Your task to perform on an android device: change the clock style Image 0: 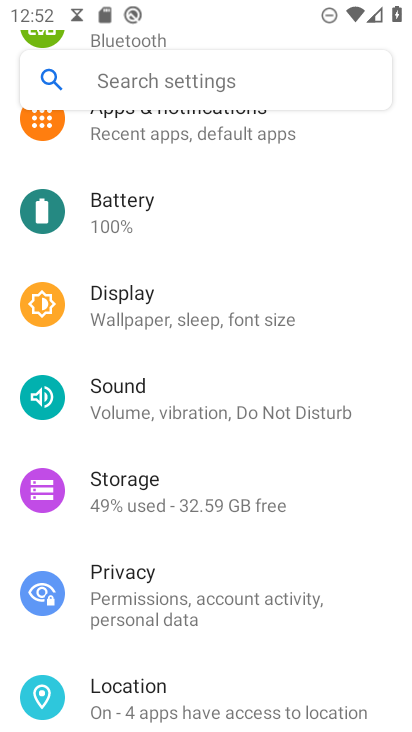
Step 0: press home button
Your task to perform on an android device: change the clock style Image 1: 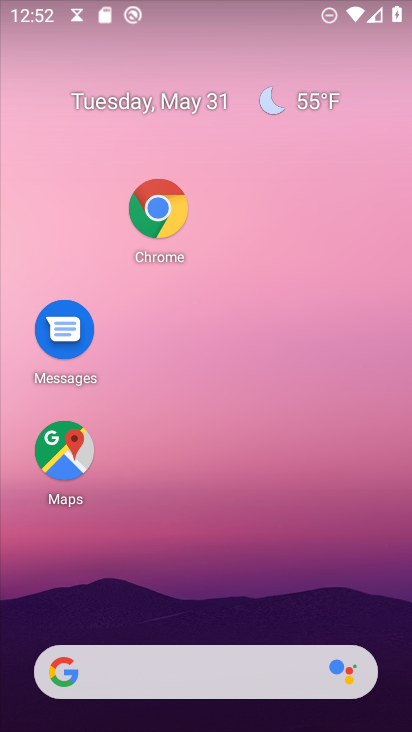
Step 1: drag from (261, 485) to (253, 110)
Your task to perform on an android device: change the clock style Image 2: 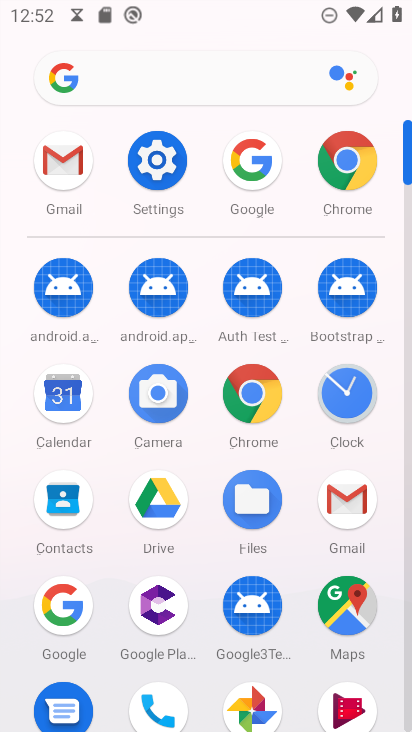
Step 2: click (343, 391)
Your task to perform on an android device: change the clock style Image 3: 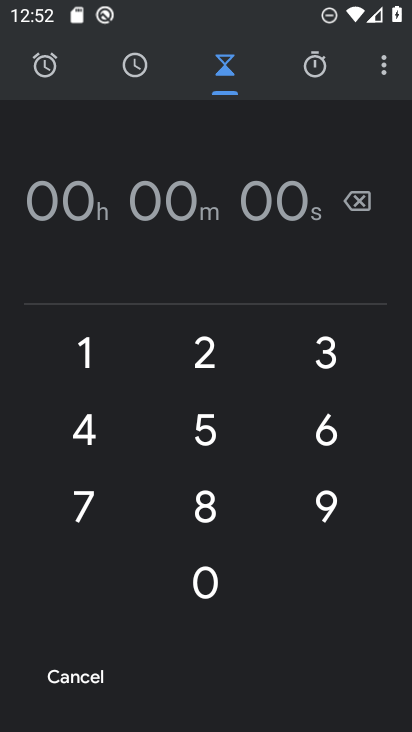
Step 3: click (385, 70)
Your task to perform on an android device: change the clock style Image 4: 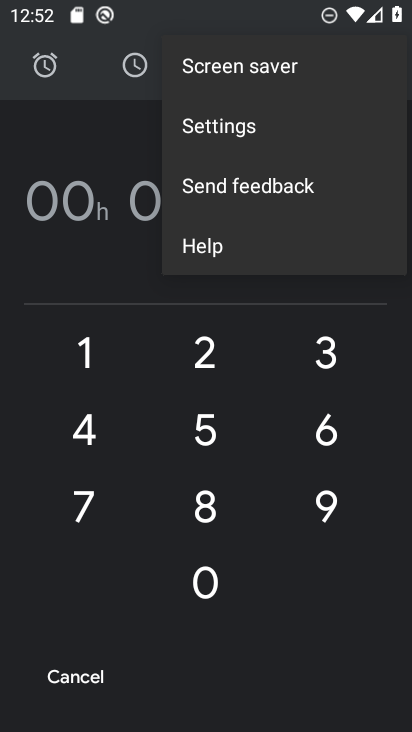
Step 4: click (229, 126)
Your task to perform on an android device: change the clock style Image 5: 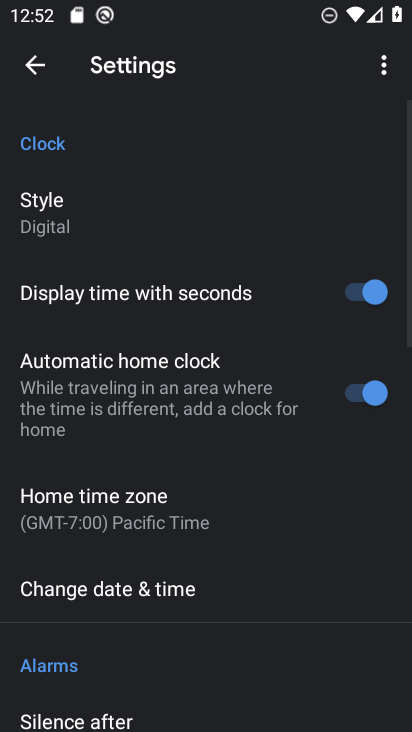
Step 5: click (37, 225)
Your task to perform on an android device: change the clock style Image 6: 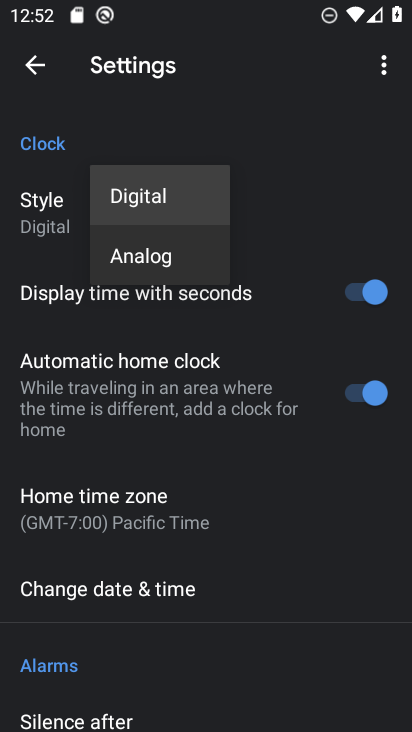
Step 6: click (178, 254)
Your task to perform on an android device: change the clock style Image 7: 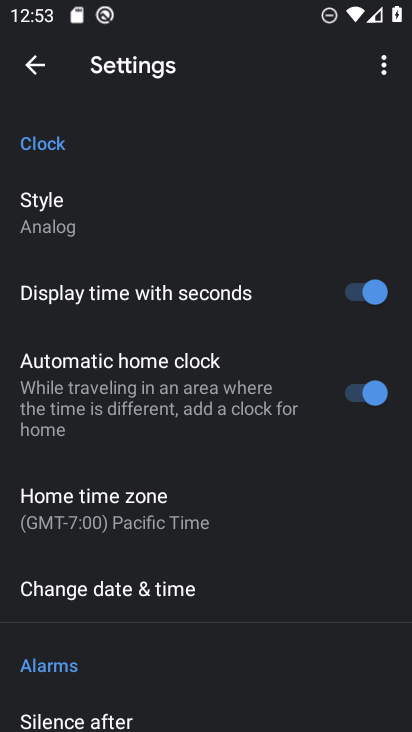
Step 7: task complete